Your task to perform on an android device: What's the weather going to be this weekend? Image 0: 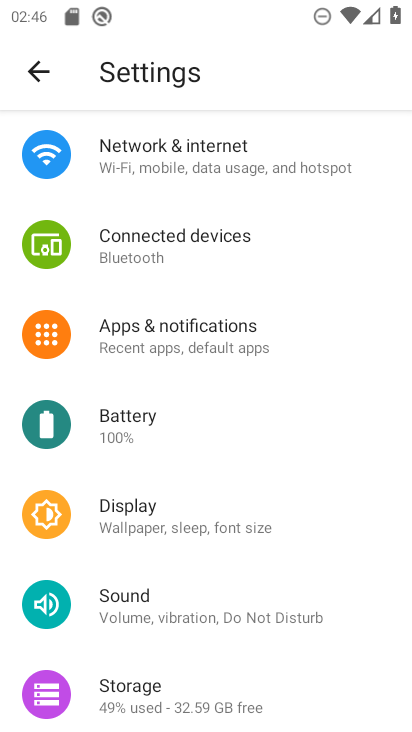
Step 0: press home button
Your task to perform on an android device: What's the weather going to be this weekend? Image 1: 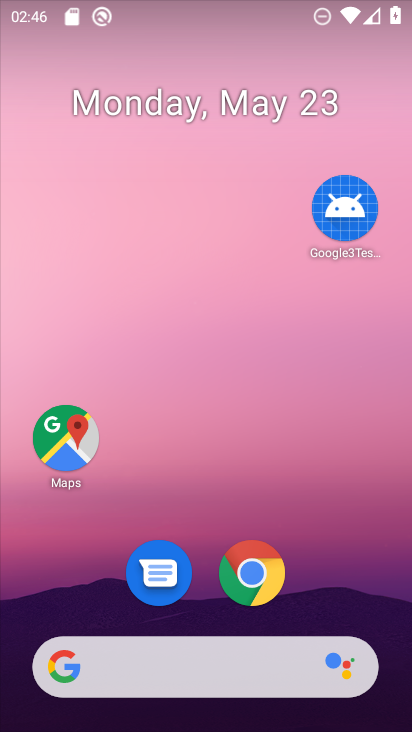
Step 1: click (255, 566)
Your task to perform on an android device: What's the weather going to be this weekend? Image 2: 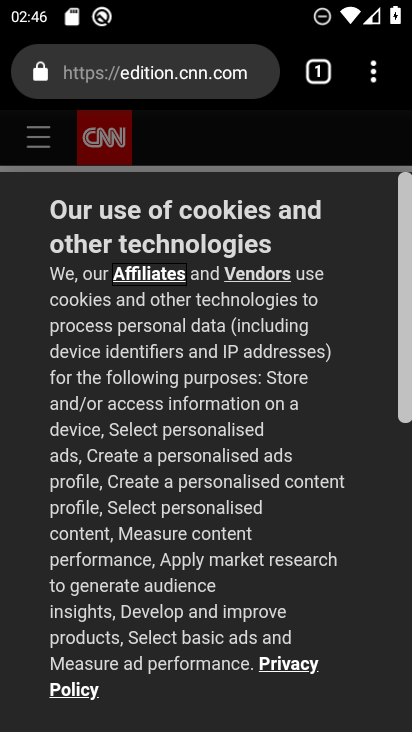
Step 2: click (253, 573)
Your task to perform on an android device: What's the weather going to be this weekend? Image 3: 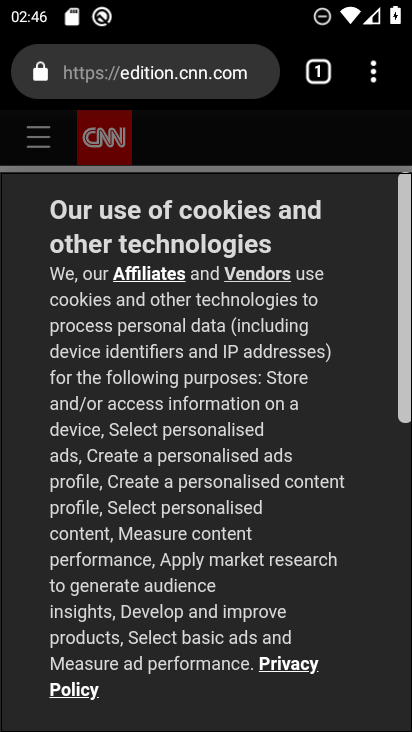
Step 3: click (188, 66)
Your task to perform on an android device: What's the weather going to be this weekend? Image 4: 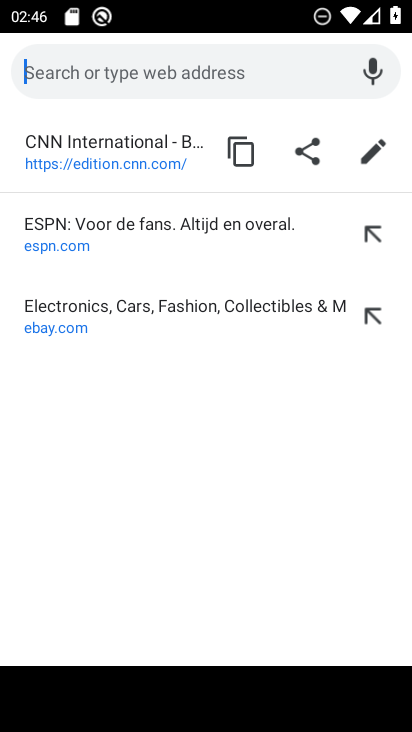
Step 4: type "weather"
Your task to perform on an android device: What's the weather going to be this weekend? Image 5: 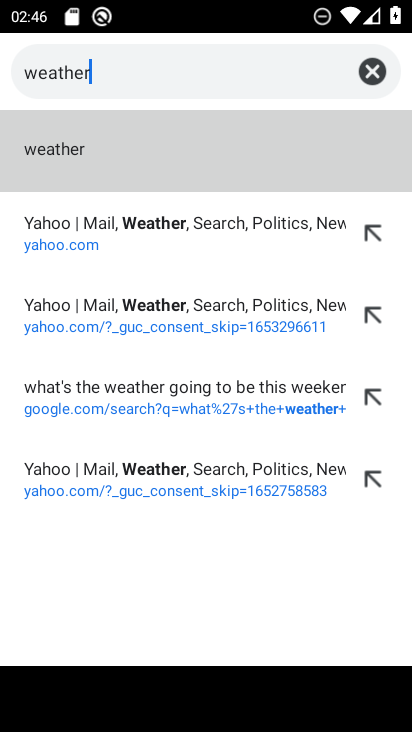
Step 5: click (44, 149)
Your task to perform on an android device: What's the weather going to be this weekend? Image 6: 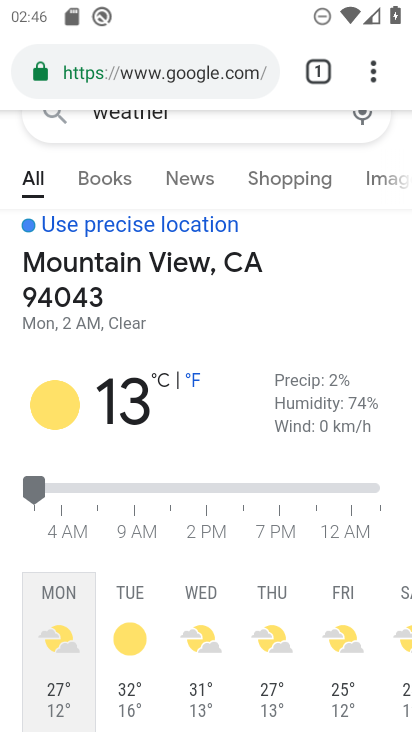
Step 6: drag from (232, 554) to (295, 254)
Your task to perform on an android device: What's the weather going to be this weekend? Image 7: 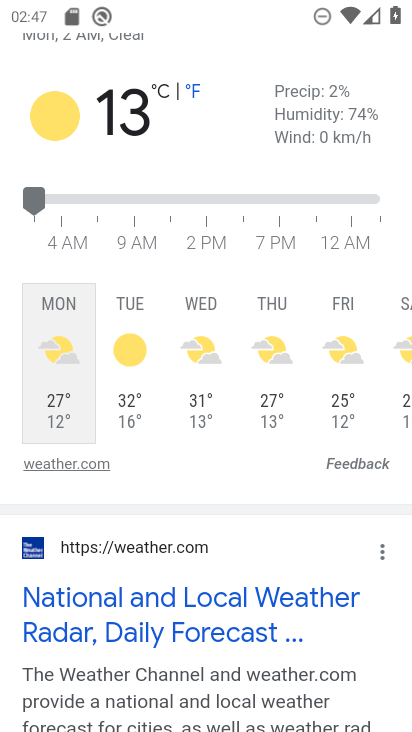
Step 7: drag from (332, 361) to (157, 357)
Your task to perform on an android device: What's the weather going to be this weekend? Image 8: 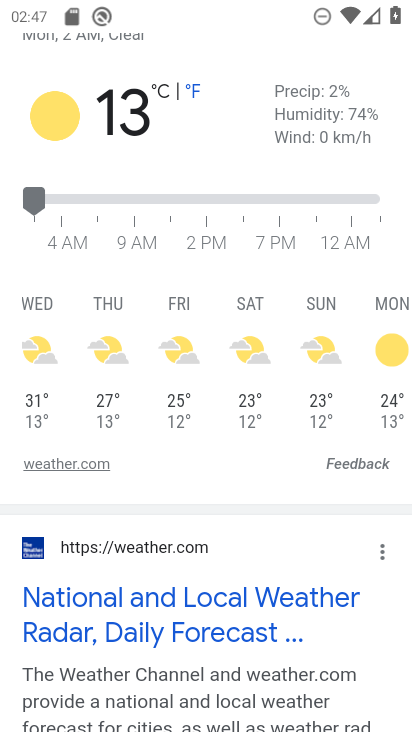
Step 8: click (243, 341)
Your task to perform on an android device: What's the weather going to be this weekend? Image 9: 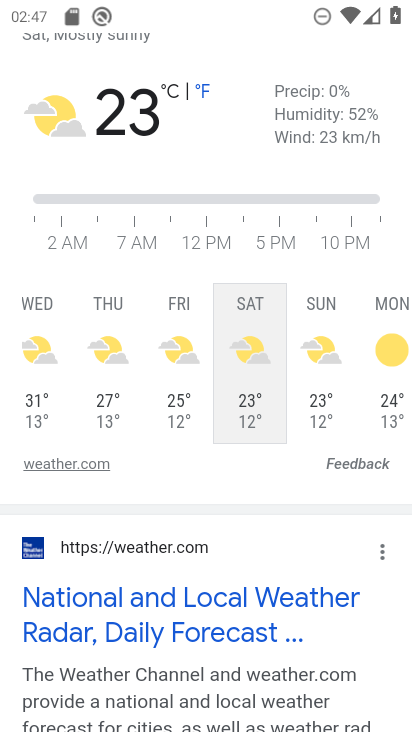
Step 9: task complete